Your task to perform on an android device: Go to Wikipedia Image 0: 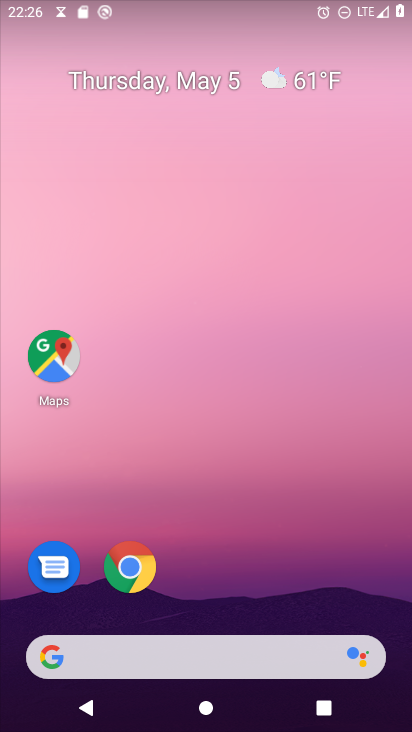
Step 0: click (129, 562)
Your task to perform on an android device: Go to Wikipedia Image 1: 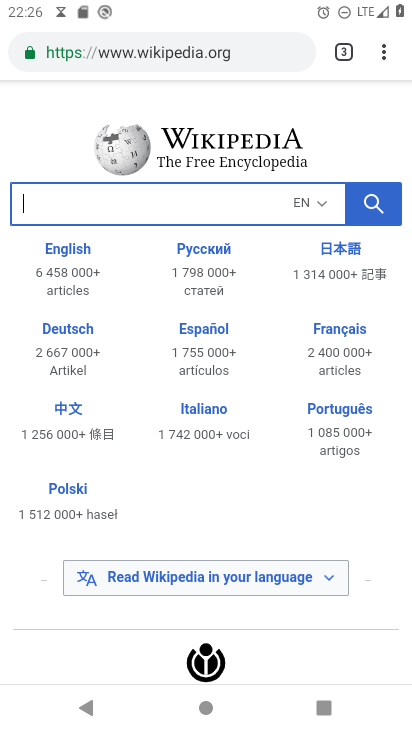
Step 1: task complete